Your task to perform on an android device: toggle sleep mode Image 0: 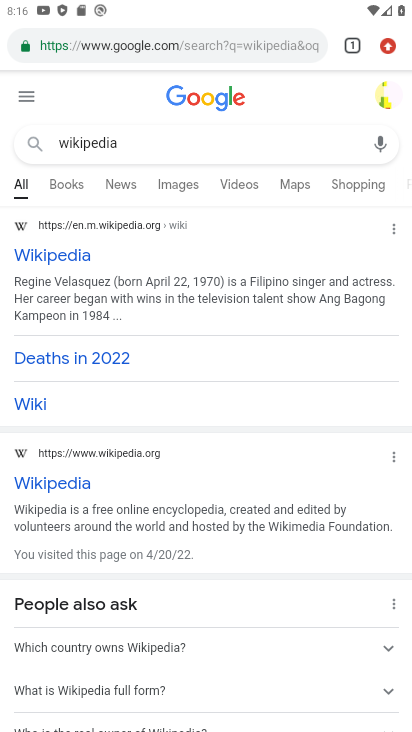
Step 0: press home button
Your task to perform on an android device: toggle sleep mode Image 1: 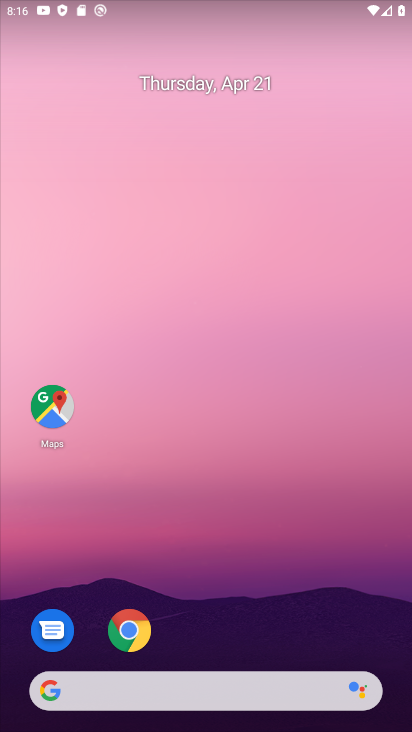
Step 1: drag from (178, 533) to (400, 161)
Your task to perform on an android device: toggle sleep mode Image 2: 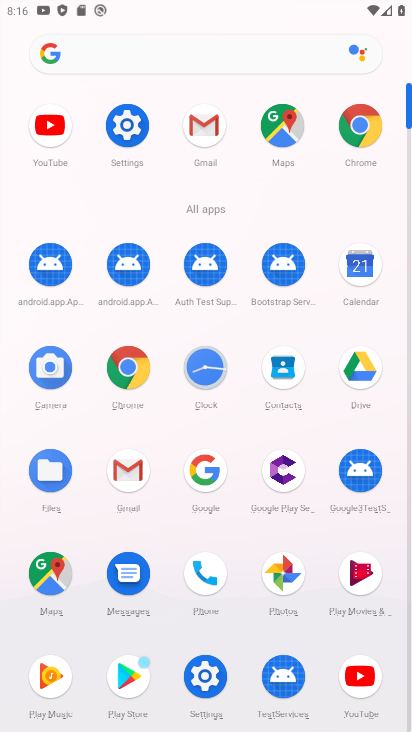
Step 2: click (134, 111)
Your task to perform on an android device: toggle sleep mode Image 3: 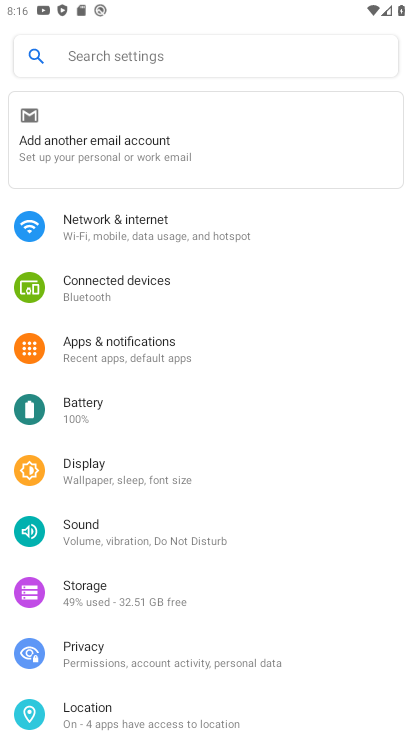
Step 3: click (164, 47)
Your task to perform on an android device: toggle sleep mode Image 4: 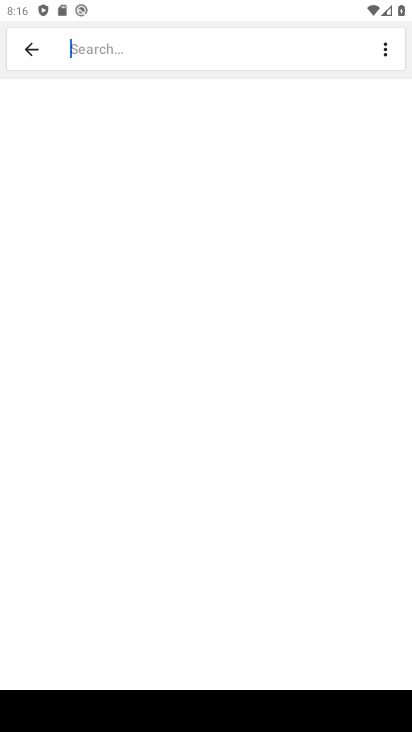
Step 4: type "sleep mode"
Your task to perform on an android device: toggle sleep mode Image 5: 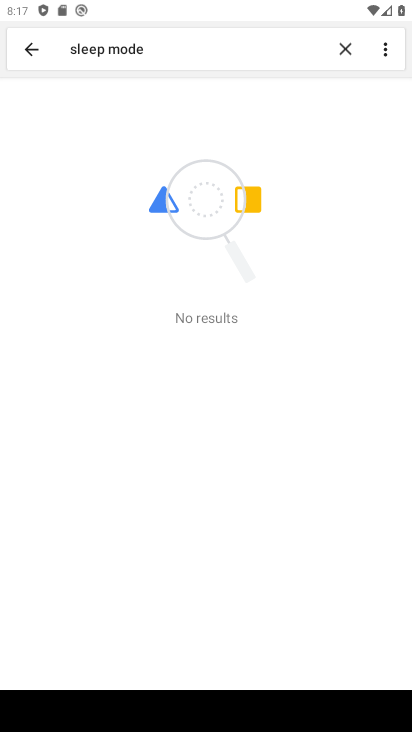
Step 5: task complete